Your task to perform on an android device: Open network settings Image 0: 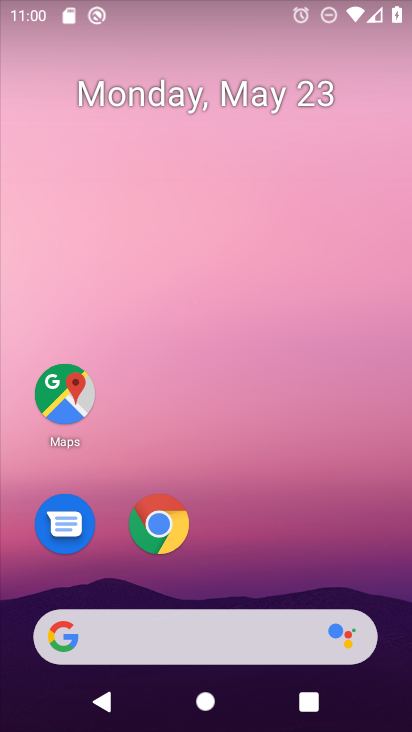
Step 0: drag from (221, 584) to (236, 146)
Your task to perform on an android device: Open network settings Image 1: 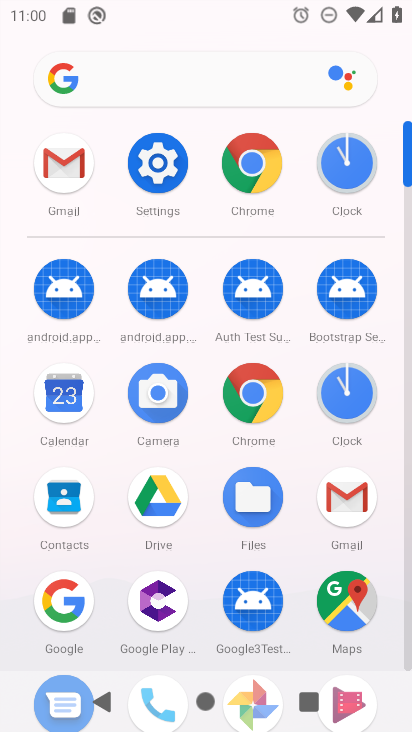
Step 1: click (160, 163)
Your task to perform on an android device: Open network settings Image 2: 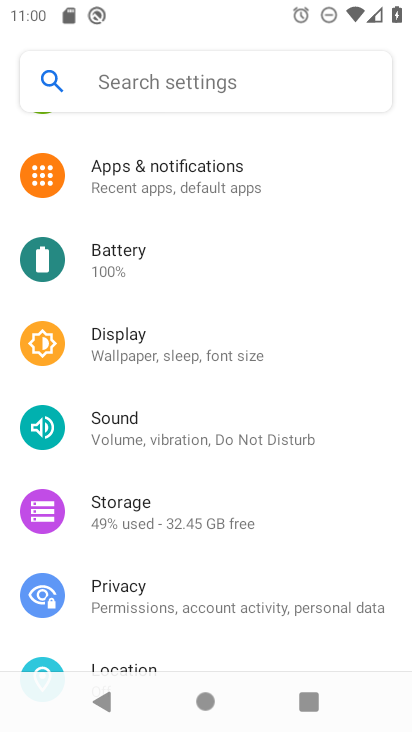
Step 2: drag from (163, 170) to (191, 581)
Your task to perform on an android device: Open network settings Image 3: 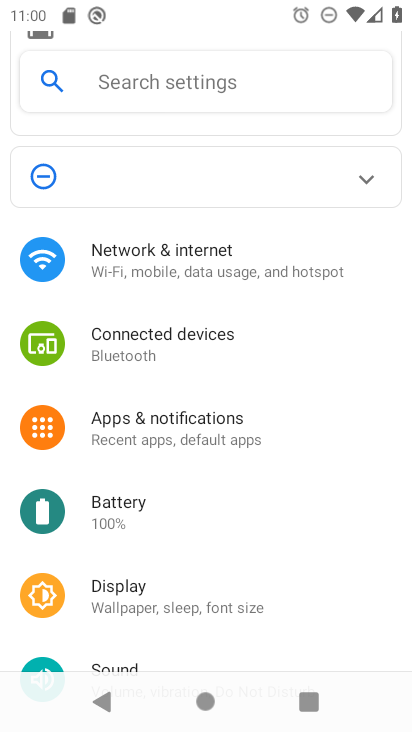
Step 3: click (191, 262)
Your task to perform on an android device: Open network settings Image 4: 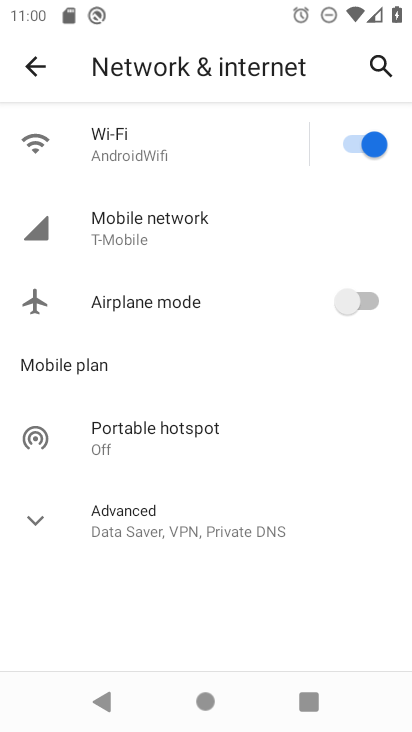
Step 4: click (191, 202)
Your task to perform on an android device: Open network settings Image 5: 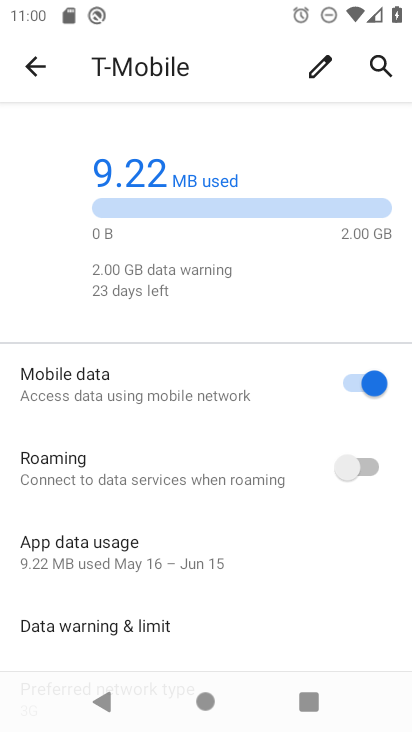
Step 5: task complete